Your task to perform on an android device: Open Chrome and go to settings Image 0: 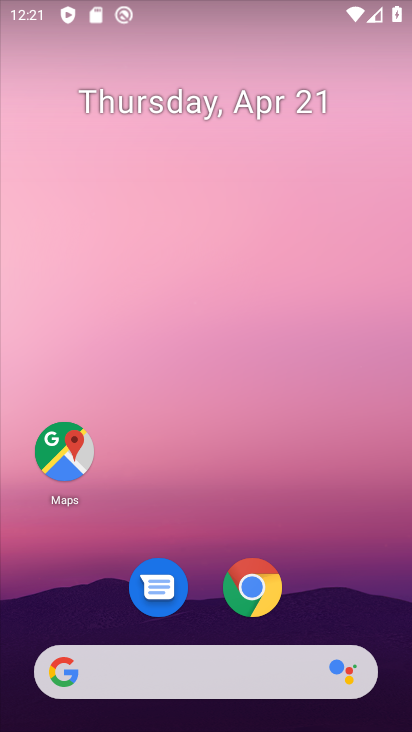
Step 0: click (250, 590)
Your task to perform on an android device: Open Chrome and go to settings Image 1: 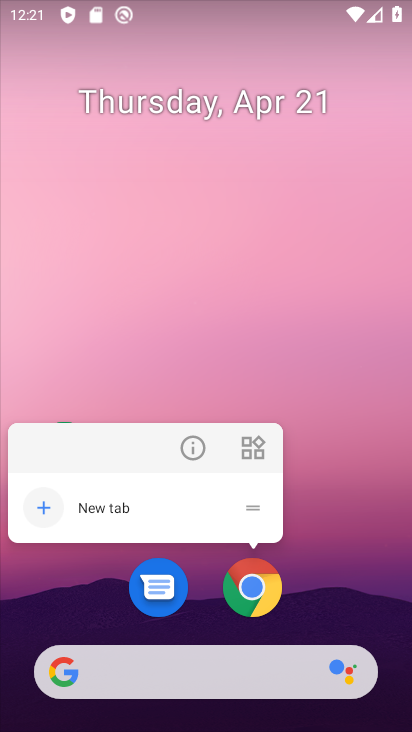
Step 1: click (240, 589)
Your task to perform on an android device: Open Chrome and go to settings Image 2: 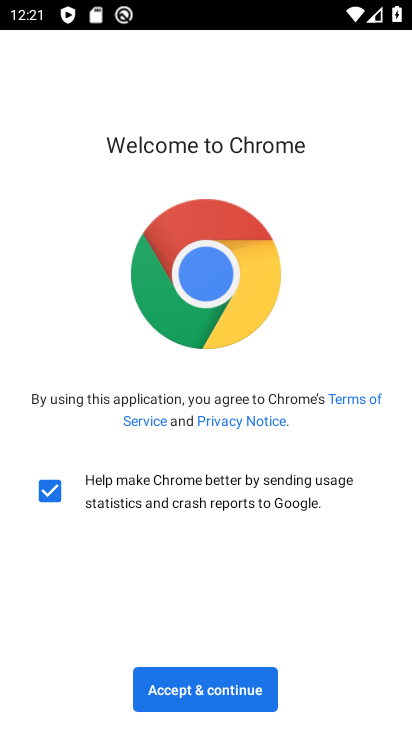
Step 2: click (176, 698)
Your task to perform on an android device: Open Chrome and go to settings Image 3: 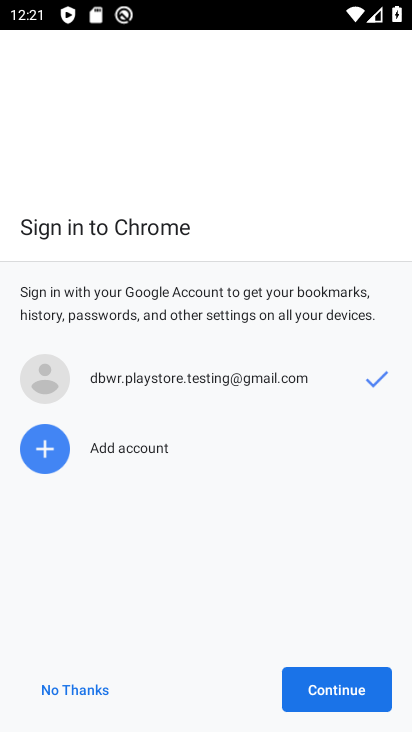
Step 3: click (322, 683)
Your task to perform on an android device: Open Chrome and go to settings Image 4: 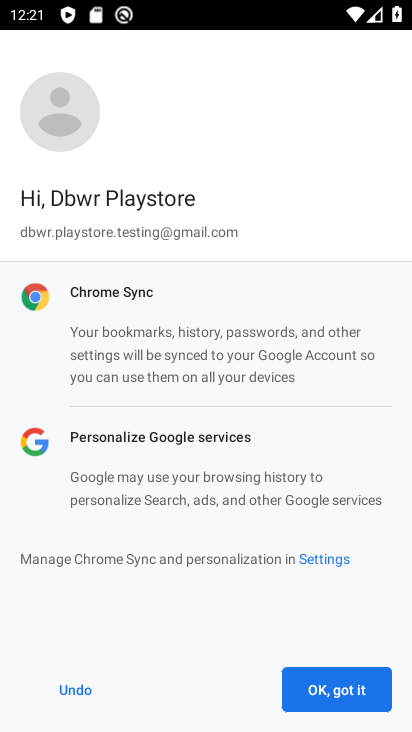
Step 4: click (322, 685)
Your task to perform on an android device: Open Chrome and go to settings Image 5: 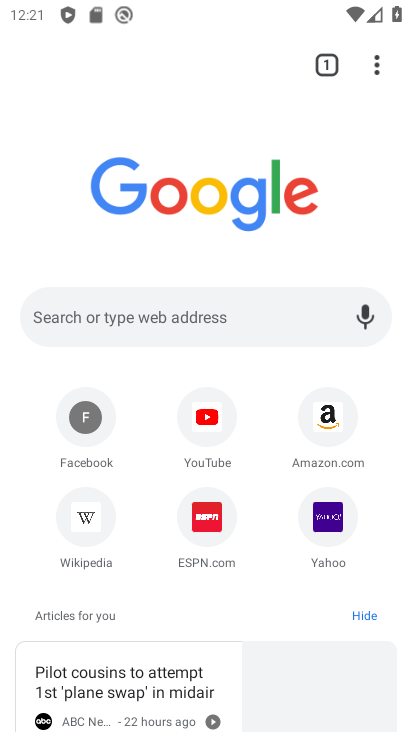
Step 5: click (373, 65)
Your task to perform on an android device: Open Chrome and go to settings Image 6: 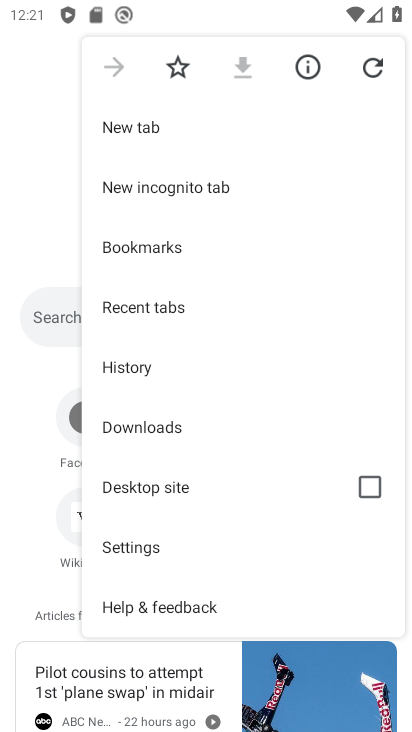
Step 6: click (147, 545)
Your task to perform on an android device: Open Chrome and go to settings Image 7: 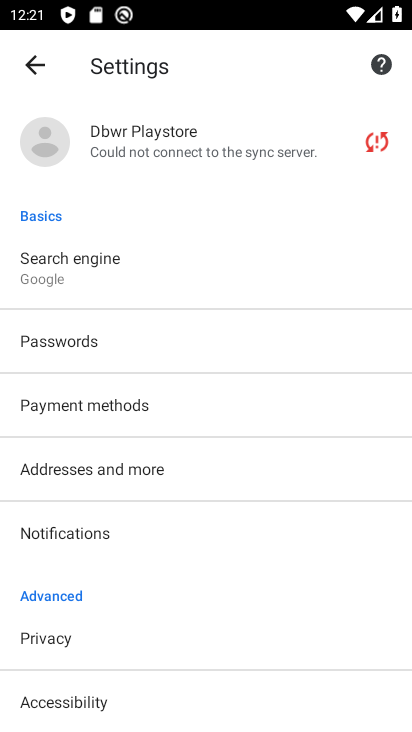
Step 7: task complete